Your task to perform on an android device: Search for Mexican restaurants on Maps Image 0: 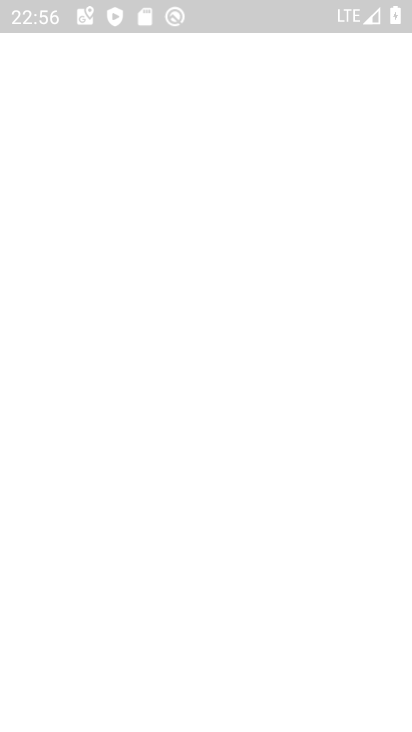
Step 0: drag from (337, 566) to (355, 144)
Your task to perform on an android device: Search for Mexican restaurants on Maps Image 1: 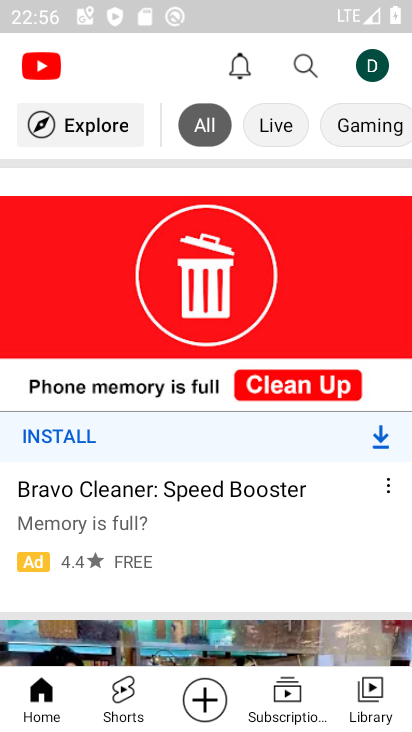
Step 1: press home button
Your task to perform on an android device: Search for Mexican restaurants on Maps Image 2: 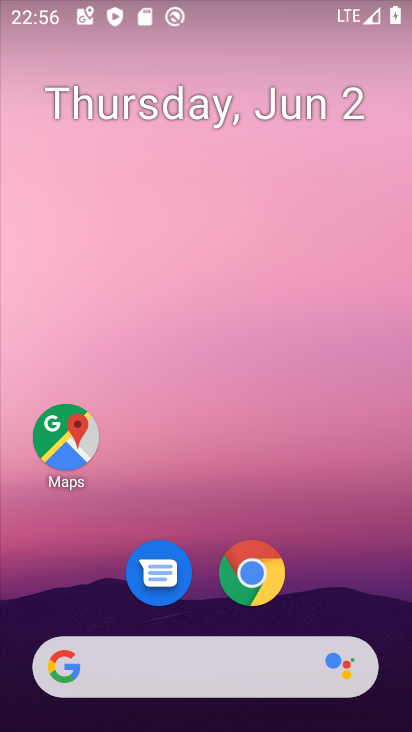
Step 2: click (69, 442)
Your task to perform on an android device: Search for Mexican restaurants on Maps Image 3: 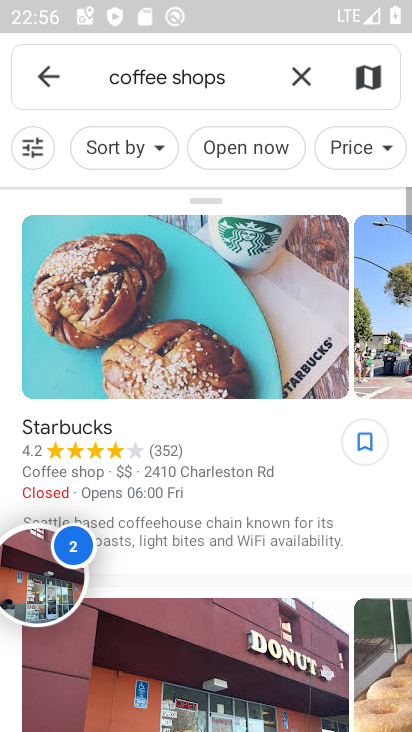
Step 3: click (293, 74)
Your task to perform on an android device: Search for Mexican restaurants on Maps Image 4: 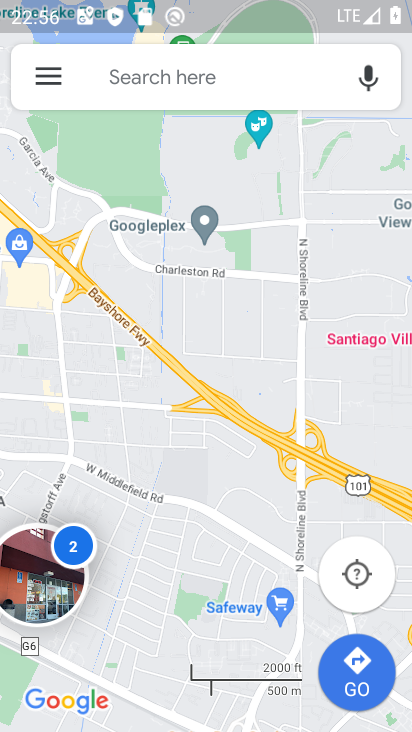
Step 4: click (153, 57)
Your task to perform on an android device: Search for Mexican restaurants on Maps Image 5: 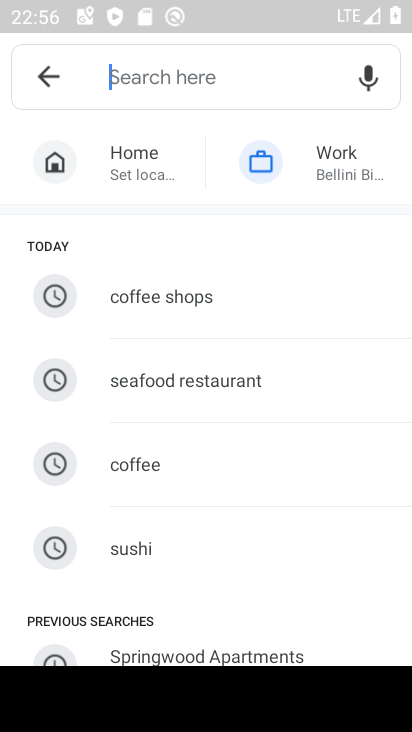
Step 5: drag from (256, 538) to (226, 100)
Your task to perform on an android device: Search for Mexican restaurants on Maps Image 6: 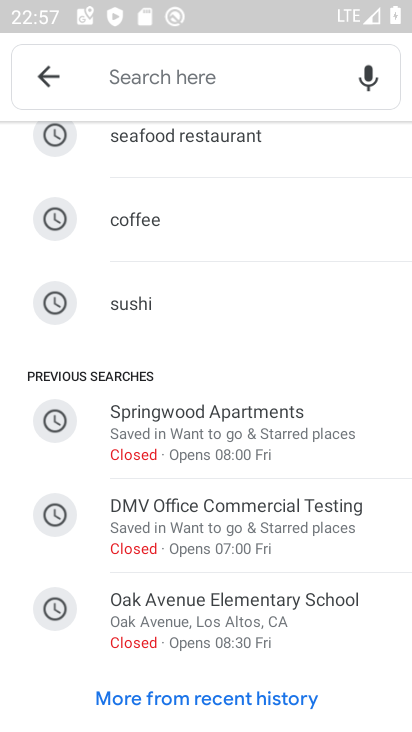
Step 6: click (228, 63)
Your task to perform on an android device: Search for Mexican restaurants on Maps Image 7: 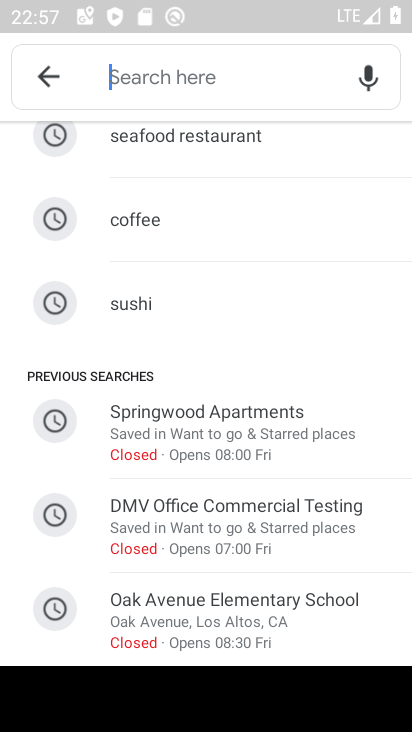
Step 7: type "Mexican restaurants"
Your task to perform on an android device: Search for Mexican restaurants on Maps Image 8: 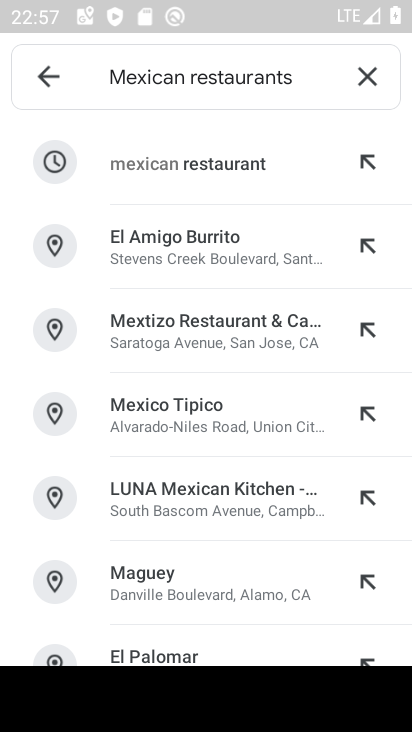
Step 8: click (304, 175)
Your task to perform on an android device: Search for Mexican restaurants on Maps Image 9: 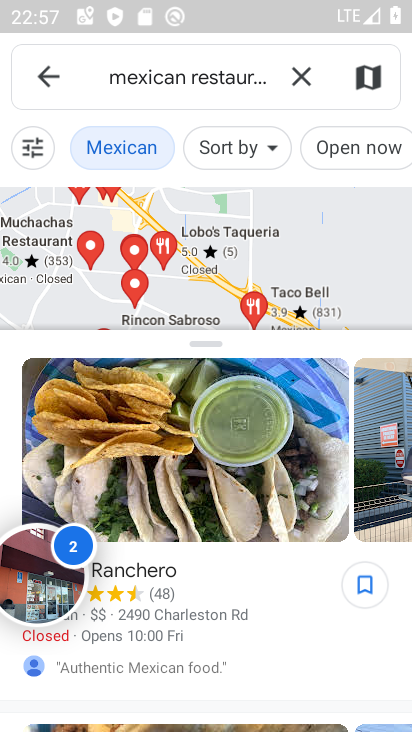
Step 9: task complete